Your task to perform on an android device: uninstall "Messenger Lite" Image 0: 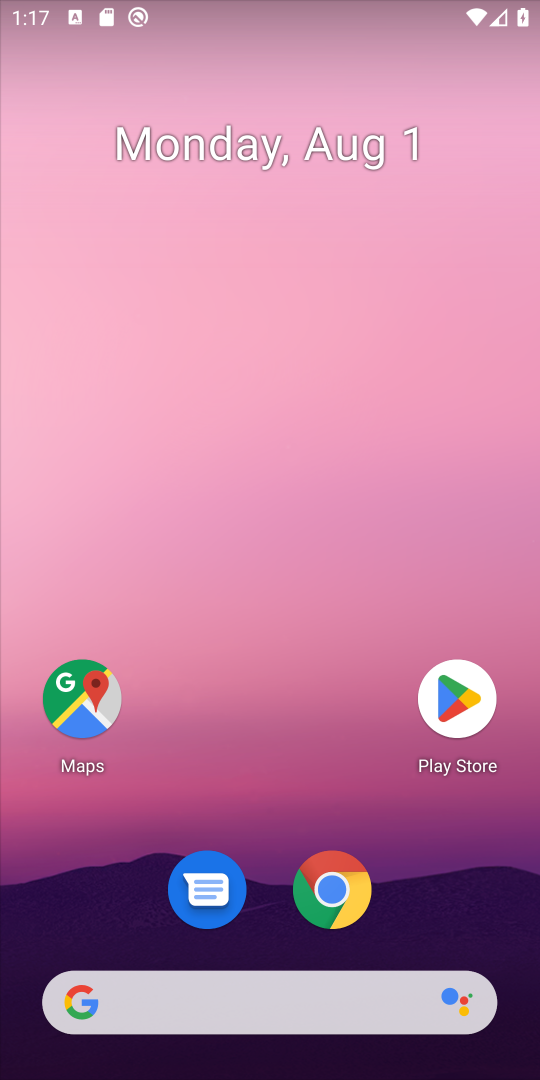
Step 0: click (443, 718)
Your task to perform on an android device: uninstall "Messenger Lite" Image 1: 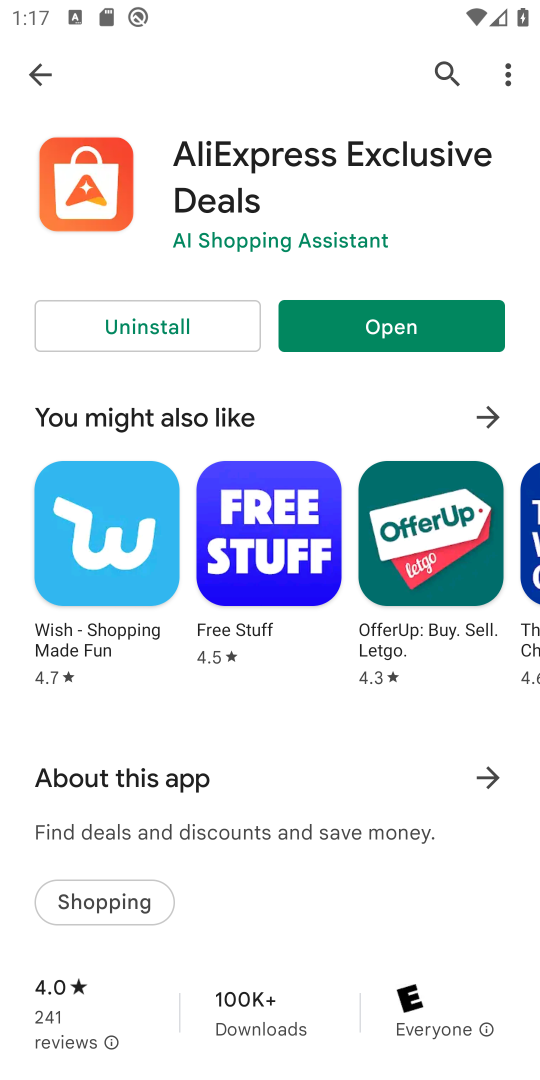
Step 1: click (432, 70)
Your task to perform on an android device: uninstall "Messenger Lite" Image 2: 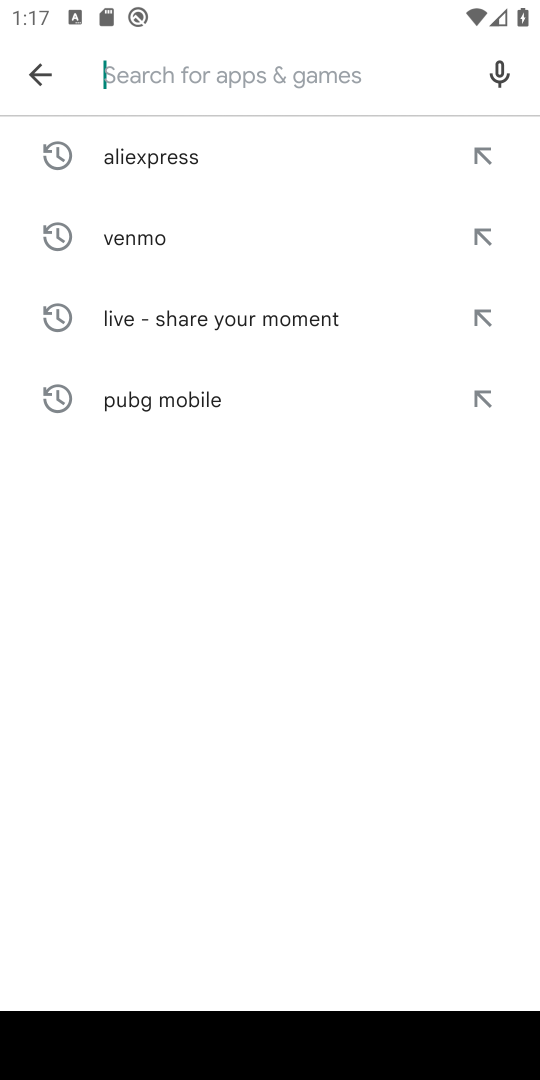
Step 2: type "Messenger Lite"
Your task to perform on an android device: uninstall "Messenger Lite" Image 3: 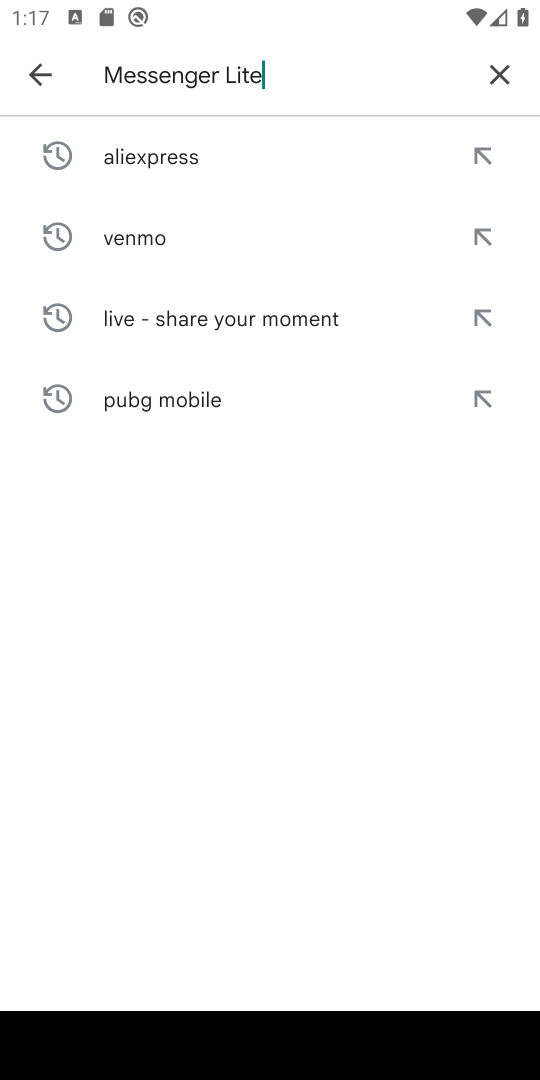
Step 3: type ""
Your task to perform on an android device: uninstall "Messenger Lite" Image 4: 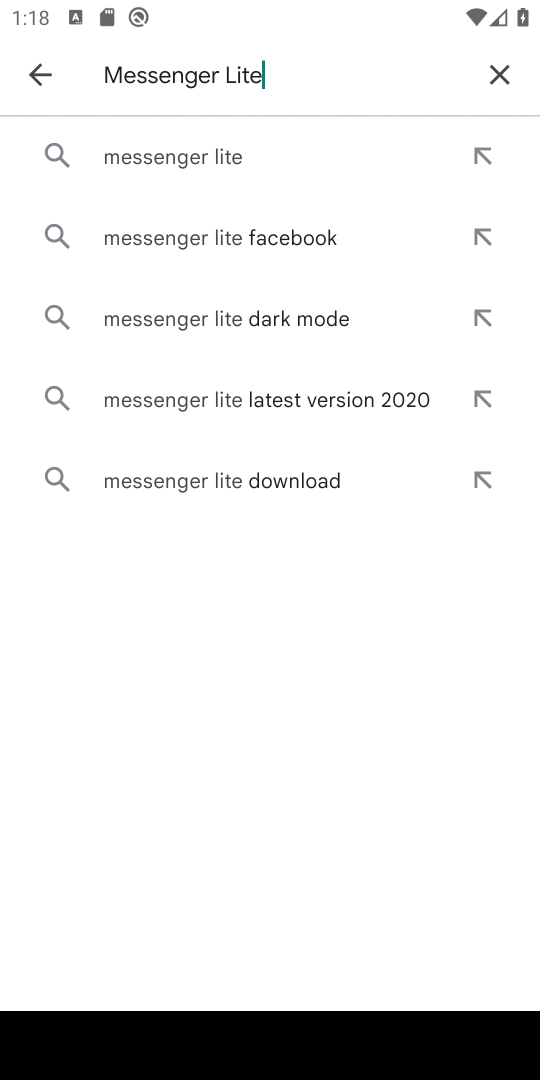
Step 4: click (176, 159)
Your task to perform on an android device: uninstall "Messenger Lite" Image 5: 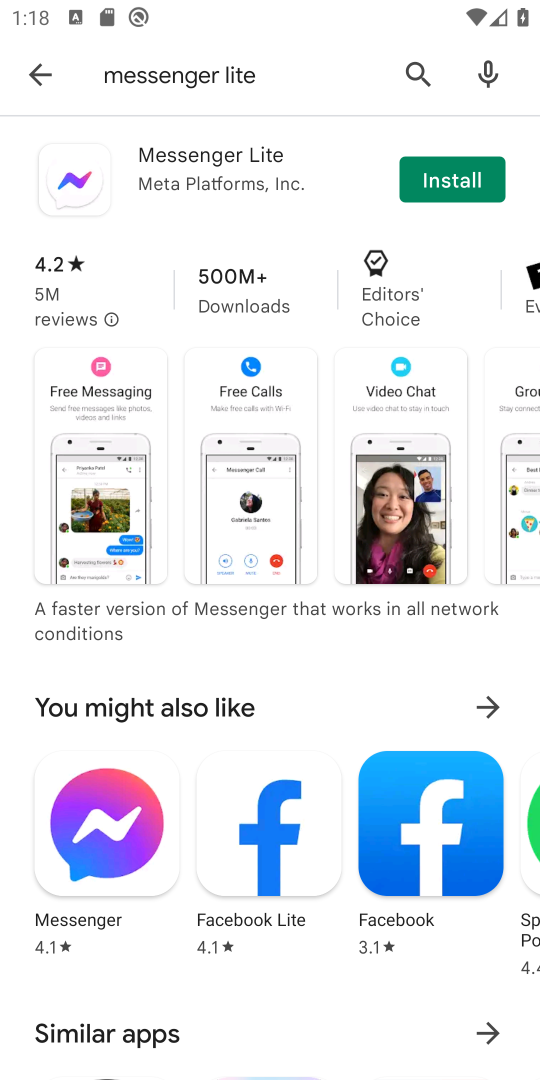
Step 5: task complete